Your task to perform on an android device: Open the map Image 0: 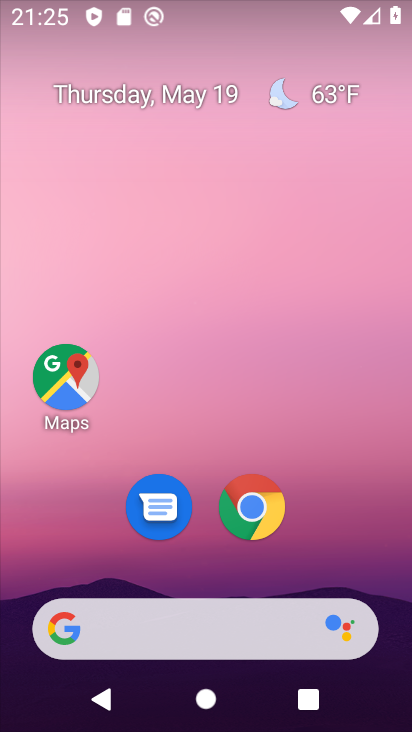
Step 0: click (84, 379)
Your task to perform on an android device: Open the map Image 1: 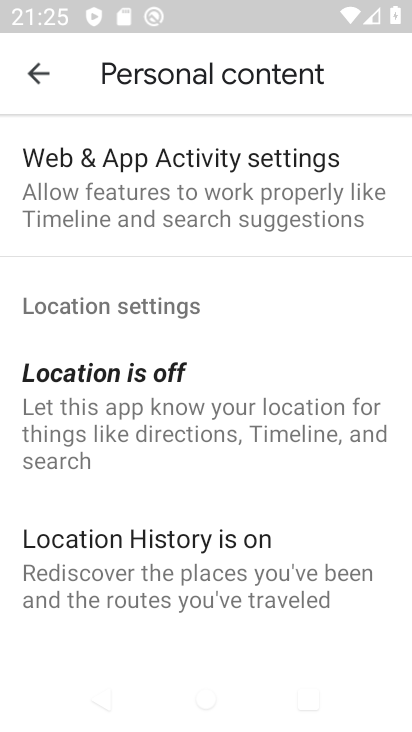
Step 1: click (43, 90)
Your task to perform on an android device: Open the map Image 2: 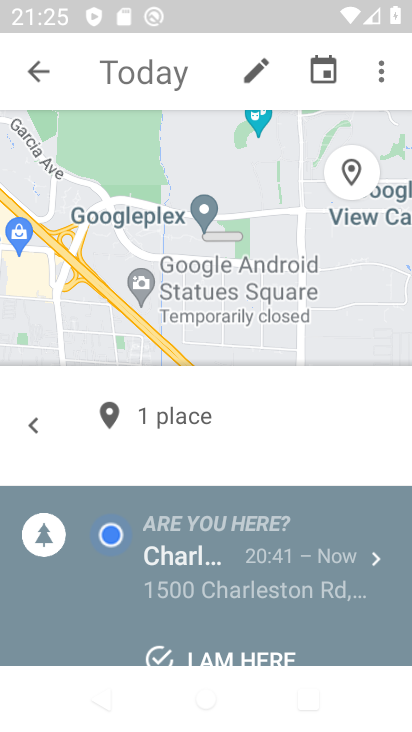
Step 2: click (43, 90)
Your task to perform on an android device: Open the map Image 3: 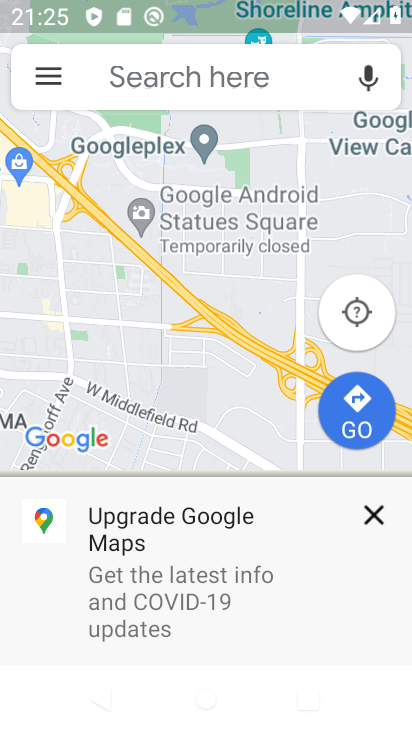
Step 3: click (365, 512)
Your task to perform on an android device: Open the map Image 4: 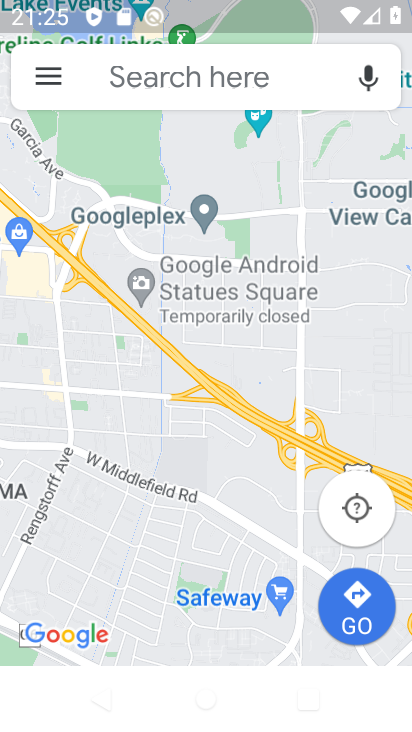
Step 4: task complete